Your task to perform on an android device: Show me productivity apps on the Play Store Image 0: 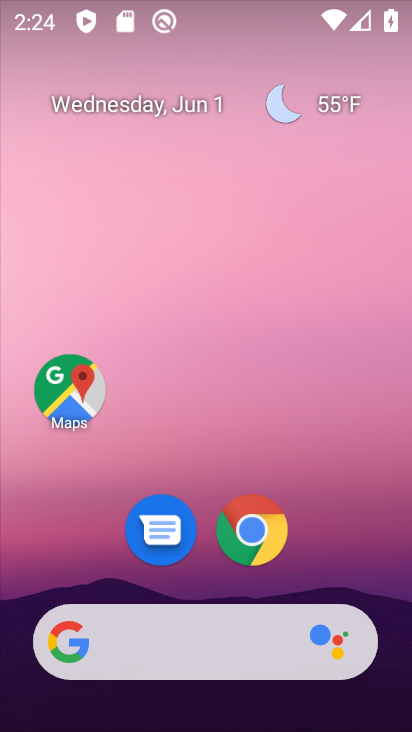
Step 0: drag from (214, 581) to (195, 40)
Your task to perform on an android device: Show me productivity apps on the Play Store Image 1: 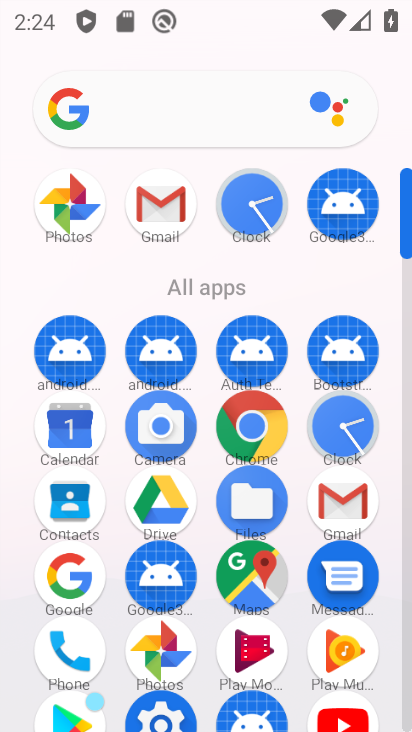
Step 1: drag from (202, 685) to (233, 92)
Your task to perform on an android device: Show me productivity apps on the Play Store Image 2: 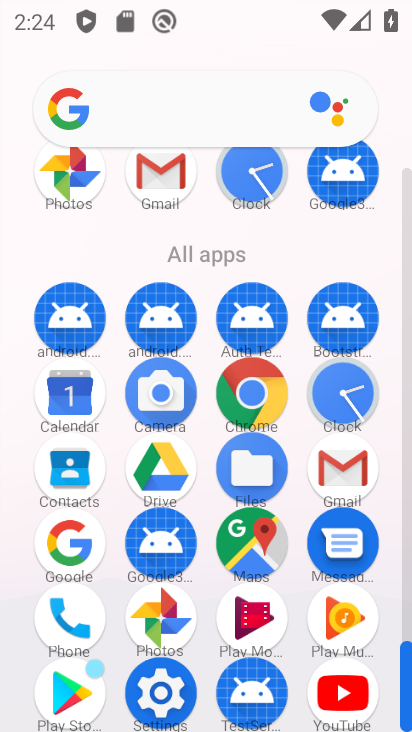
Step 2: click (66, 698)
Your task to perform on an android device: Show me productivity apps on the Play Store Image 3: 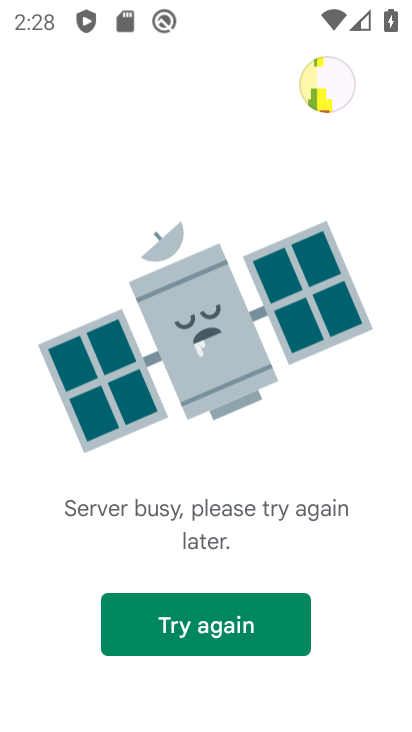
Step 3: task complete